Your task to perform on an android device: Go to Google Image 0: 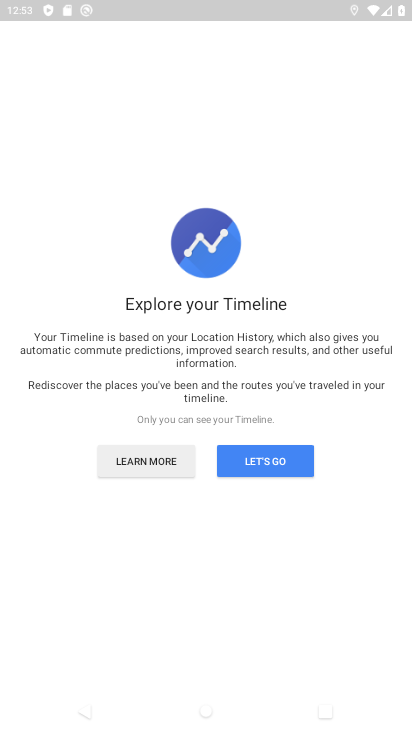
Step 0: press home button
Your task to perform on an android device: Go to Google Image 1: 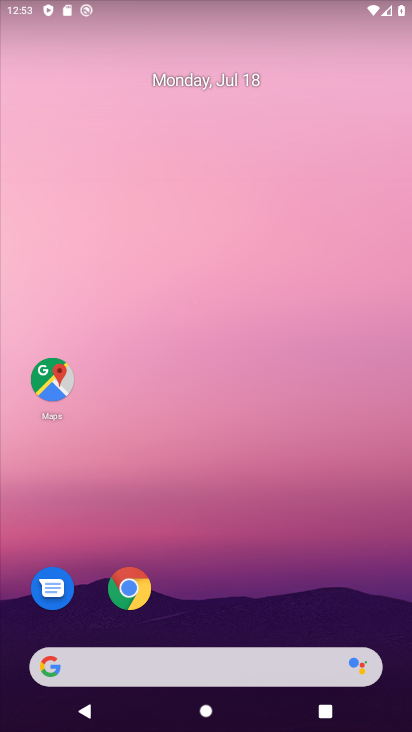
Step 1: drag from (209, 663) to (281, 112)
Your task to perform on an android device: Go to Google Image 2: 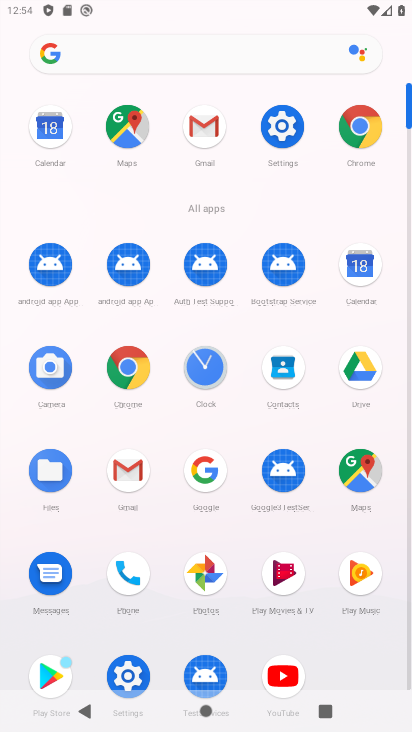
Step 2: click (192, 489)
Your task to perform on an android device: Go to Google Image 3: 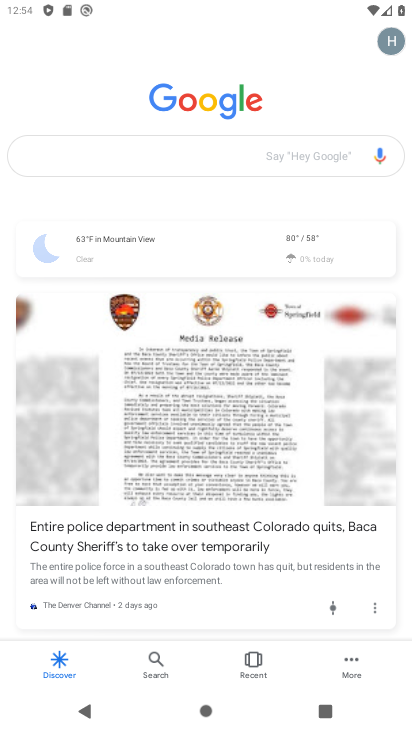
Step 3: task complete